Your task to perform on an android device: change the clock display to show seconds Image 0: 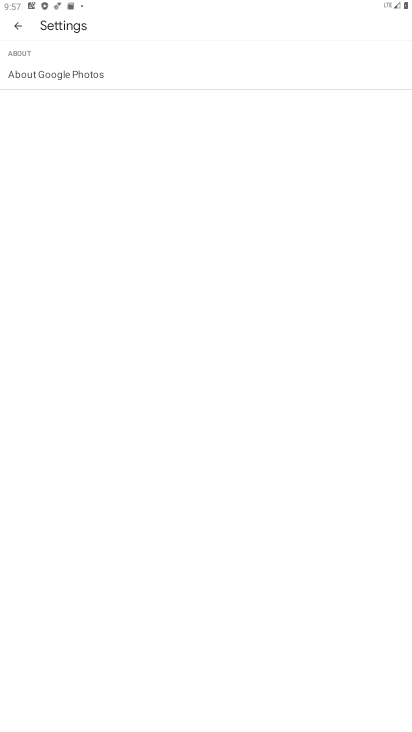
Step 0: press home button
Your task to perform on an android device: change the clock display to show seconds Image 1: 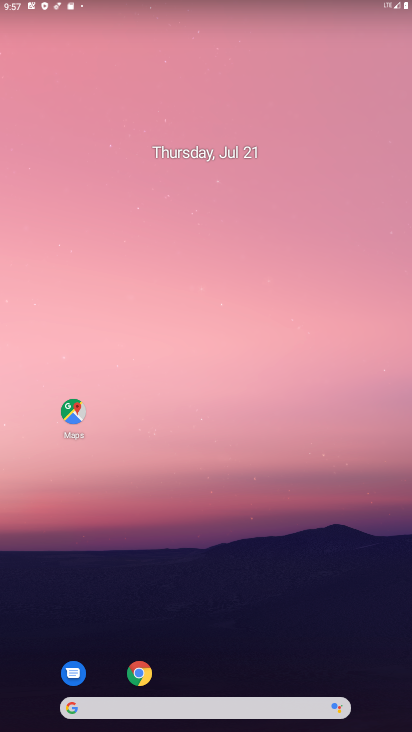
Step 1: drag from (226, 649) to (278, 24)
Your task to perform on an android device: change the clock display to show seconds Image 2: 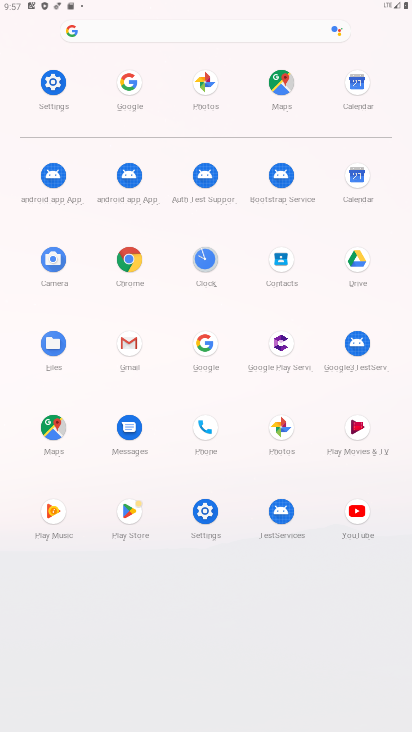
Step 2: click (212, 251)
Your task to perform on an android device: change the clock display to show seconds Image 3: 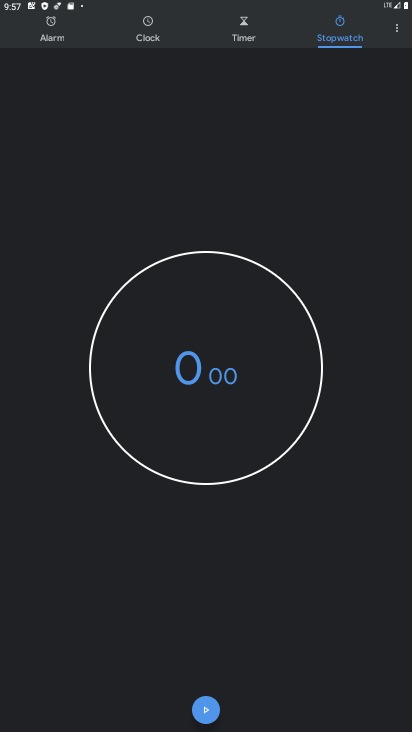
Step 3: click (403, 22)
Your task to perform on an android device: change the clock display to show seconds Image 4: 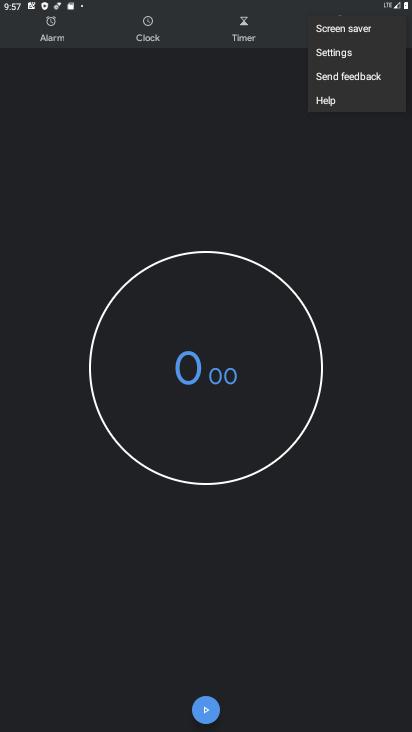
Step 4: click (344, 49)
Your task to perform on an android device: change the clock display to show seconds Image 5: 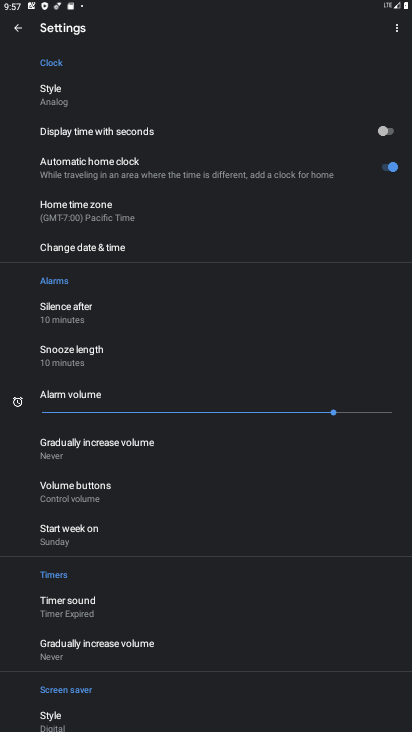
Step 5: click (390, 133)
Your task to perform on an android device: change the clock display to show seconds Image 6: 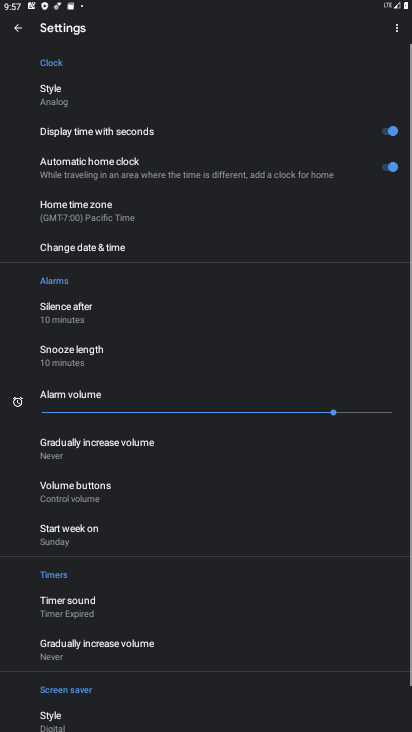
Step 6: task complete